Your task to perform on an android device: add a label to a message in the gmail app Image 0: 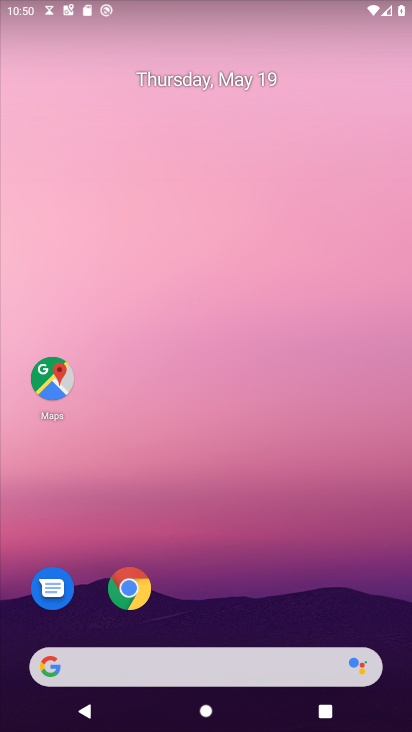
Step 0: drag from (281, 576) to (222, 89)
Your task to perform on an android device: add a label to a message in the gmail app Image 1: 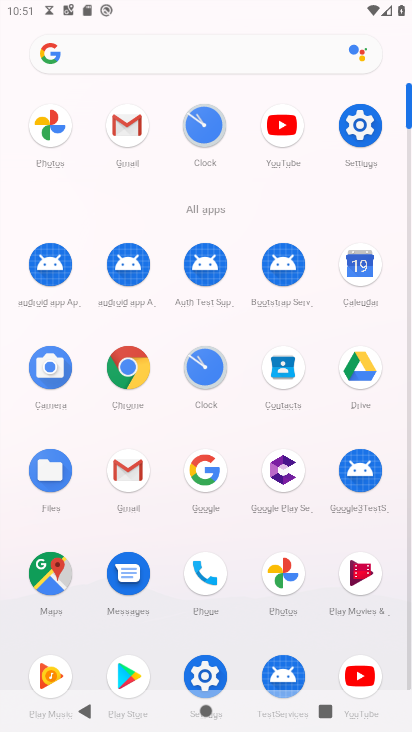
Step 1: click (132, 134)
Your task to perform on an android device: add a label to a message in the gmail app Image 2: 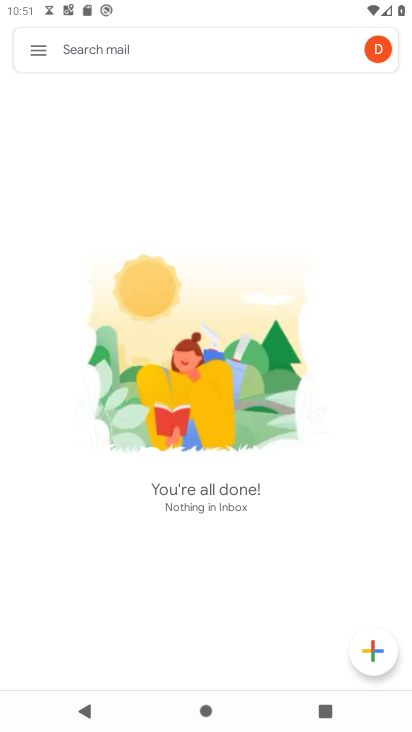
Step 2: click (44, 44)
Your task to perform on an android device: add a label to a message in the gmail app Image 3: 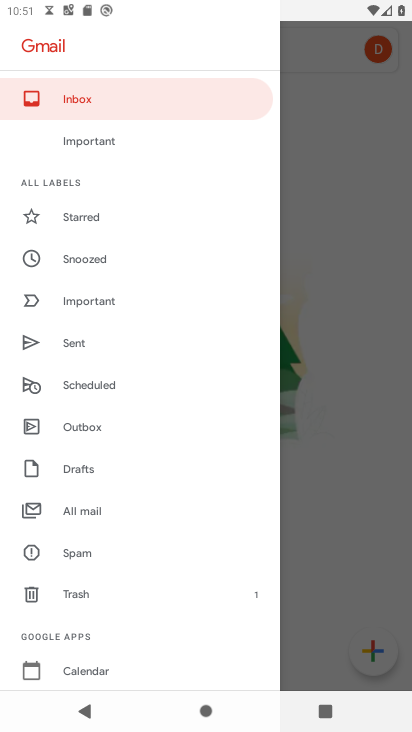
Step 3: click (319, 293)
Your task to perform on an android device: add a label to a message in the gmail app Image 4: 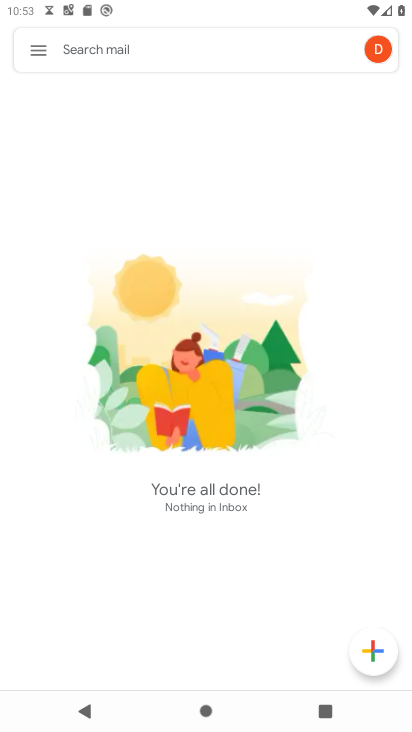
Step 4: task complete